Your task to perform on an android device: uninstall "McDonald's" Image 0: 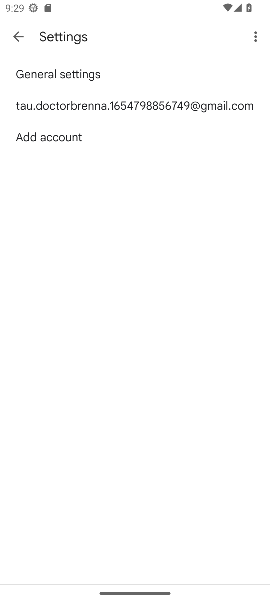
Step 0: press home button
Your task to perform on an android device: uninstall "McDonald's" Image 1: 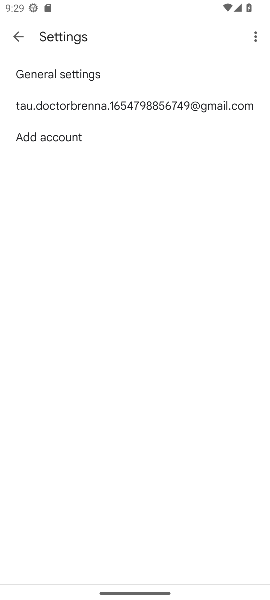
Step 1: press home button
Your task to perform on an android device: uninstall "McDonald's" Image 2: 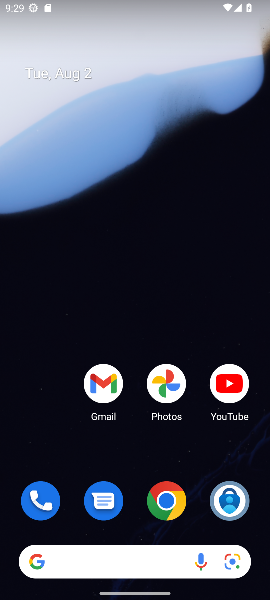
Step 2: drag from (103, 486) to (188, 171)
Your task to perform on an android device: uninstall "McDonald's" Image 3: 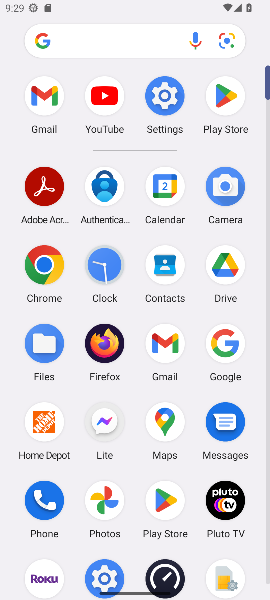
Step 3: click (226, 98)
Your task to perform on an android device: uninstall "McDonald's" Image 4: 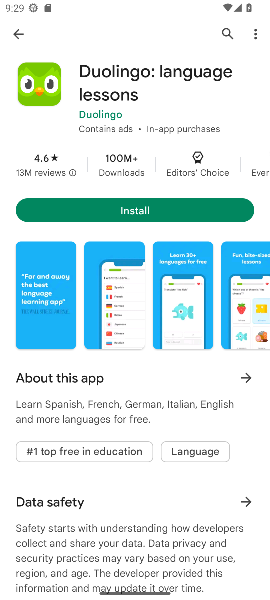
Step 4: drag from (190, 113) to (230, 591)
Your task to perform on an android device: uninstall "McDonald's" Image 5: 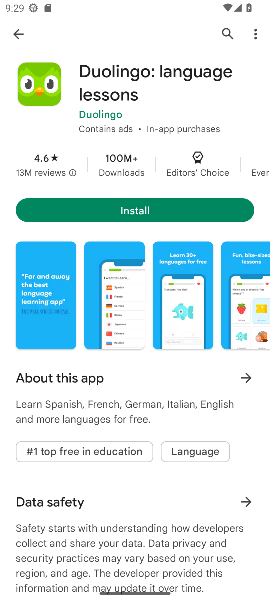
Step 5: click (220, 28)
Your task to perform on an android device: uninstall "McDonald's" Image 6: 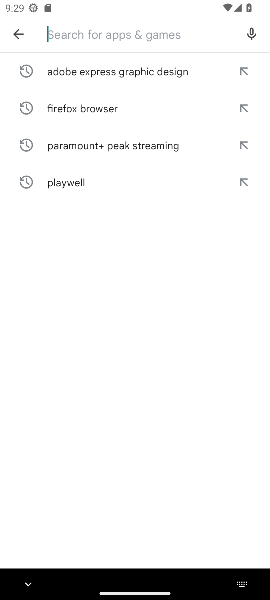
Step 6: type "McDonald's"
Your task to perform on an android device: uninstall "McDonald's" Image 7: 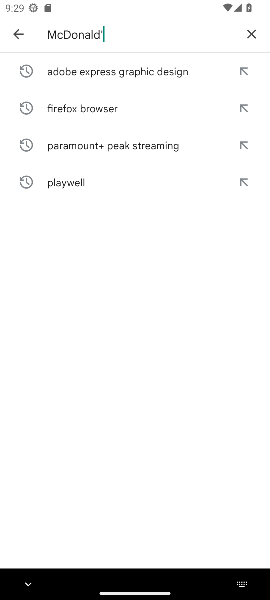
Step 7: type ""
Your task to perform on an android device: uninstall "McDonald's" Image 8: 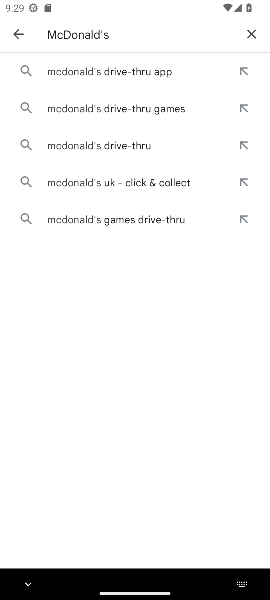
Step 8: click (87, 78)
Your task to perform on an android device: uninstall "McDonald's" Image 9: 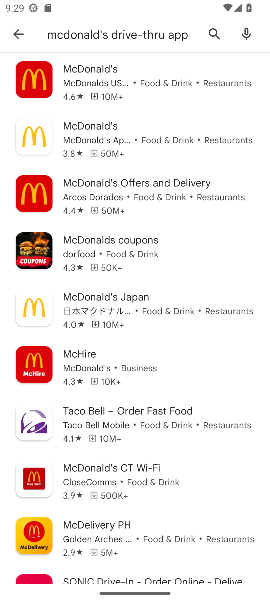
Step 9: click (91, 75)
Your task to perform on an android device: uninstall "McDonald's" Image 10: 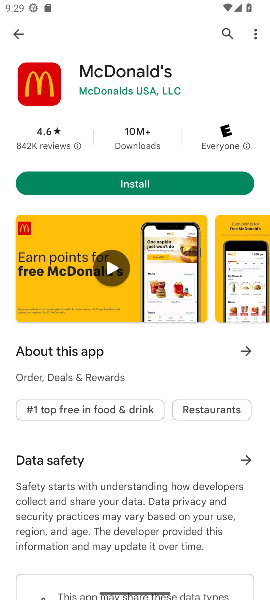
Step 10: task complete